Your task to perform on an android device: Open Google Maps and go to "Timeline" Image 0: 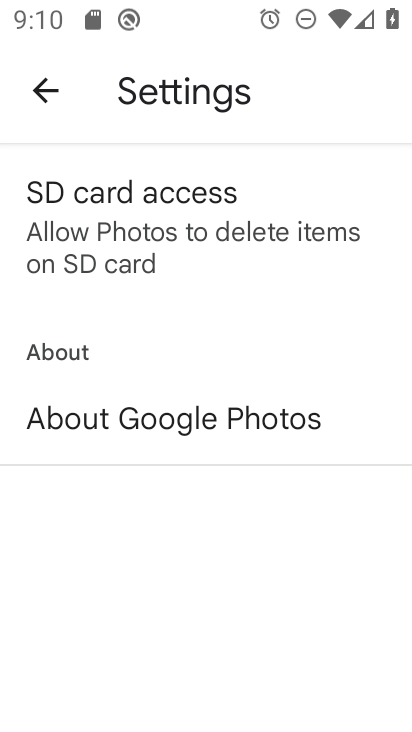
Step 0: press home button
Your task to perform on an android device: Open Google Maps and go to "Timeline" Image 1: 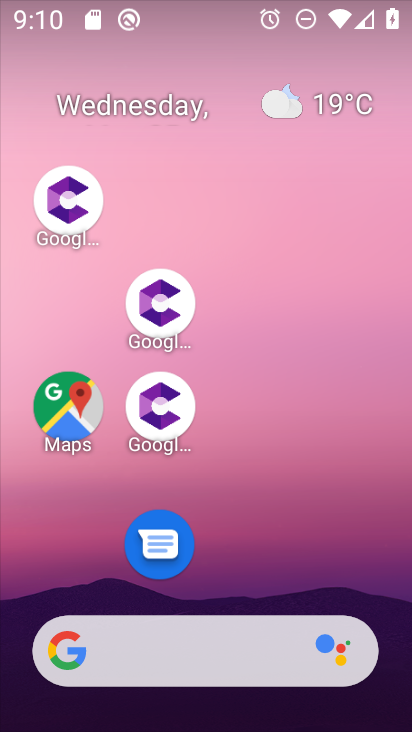
Step 1: click (65, 403)
Your task to perform on an android device: Open Google Maps and go to "Timeline" Image 2: 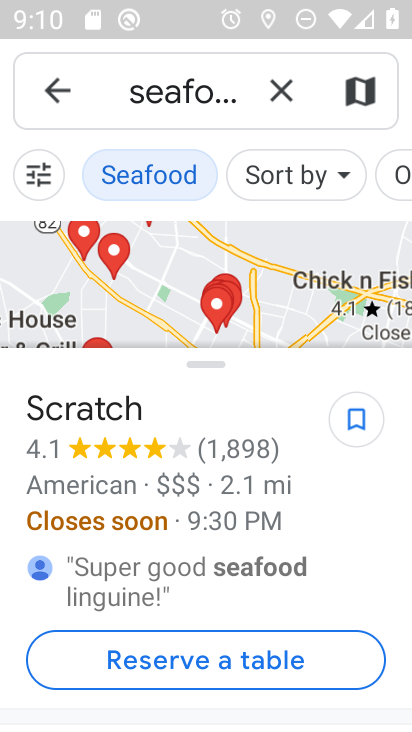
Step 2: click (55, 85)
Your task to perform on an android device: Open Google Maps and go to "Timeline" Image 3: 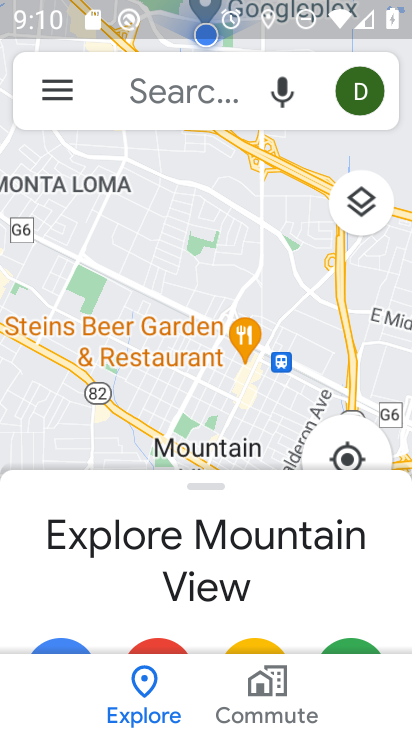
Step 3: click (54, 89)
Your task to perform on an android device: Open Google Maps and go to "Timeline" Image 4: 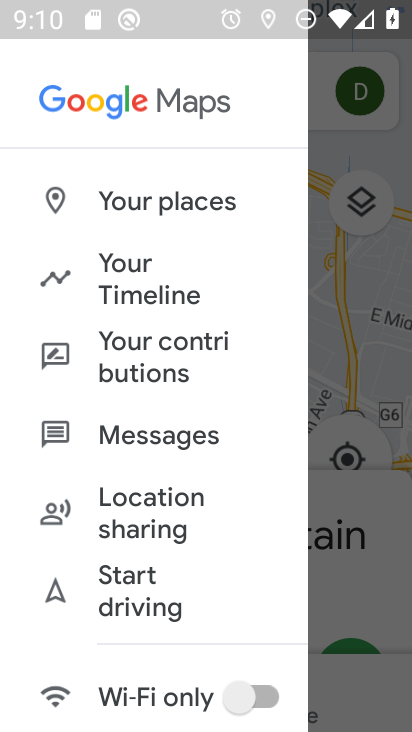
Step 4: click (126, 278)
Your task to perform on an android device: Open Google Maps and go to "Timeline" Image 5: 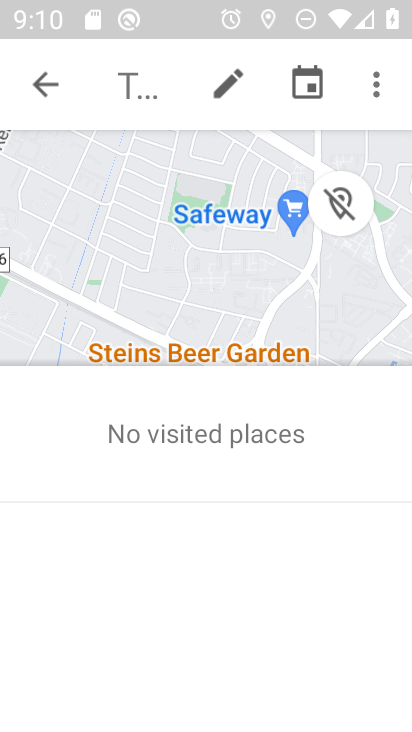
Step 5: task complete